Your task to perform on an android device: uninstall "WhatsApp Messenger" Image 0: 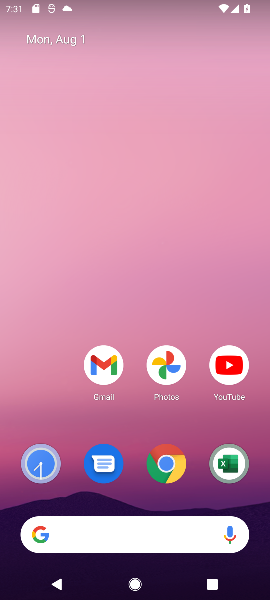
Step 0: drag from (121, 504) to (139, 56)
Your task to perform on an android device: uninstall "WhatsApp Messenger" Image 1: 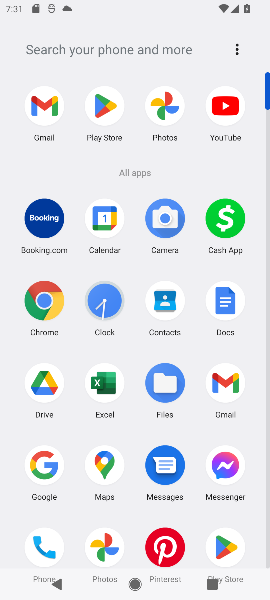
Step 1: click (93, 122)
Your task to perform on an android device: uninstall "WhatsApp Messenger" Image 2: 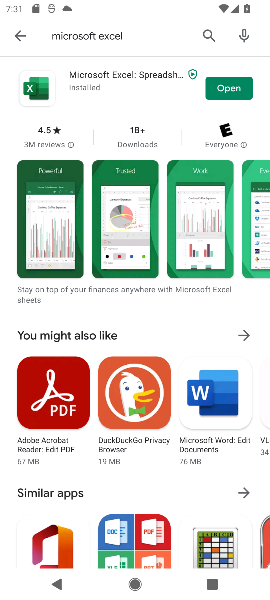
Step 2: click (206, 27)
Your task to perform on an android device: uninstall "WhatsApp Messenger" Image 3: 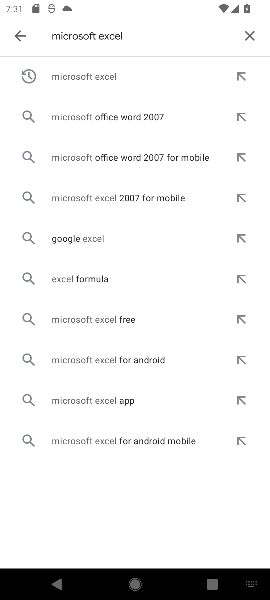
Step 3: click (241, 34)
Your task to perform on an android device: uninstall "WhatsApp Messenger" Image 4: 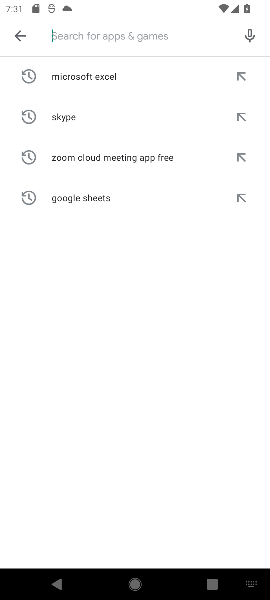
Step 4: type "whatapp"
Your task to perform on an android device: uninstall "WhatsApp Messenger" Image 5: 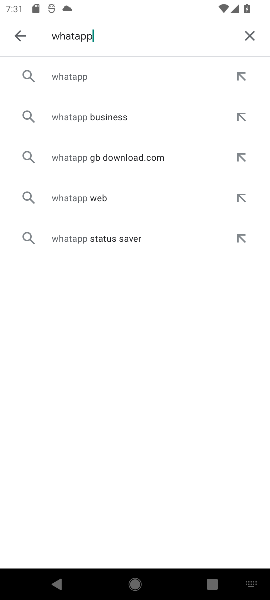
Step 5: click (137, 81)
Your task to perform on an android device: uninstall "WhatsApp Messenger" Image 6: 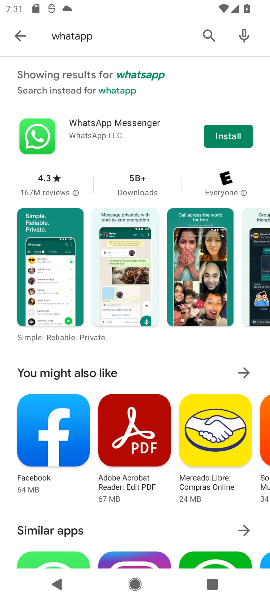
Step 6: click (214, 133)
Your task to perform on an android device: uninstall "WhatsApp Messenger" Image 7: 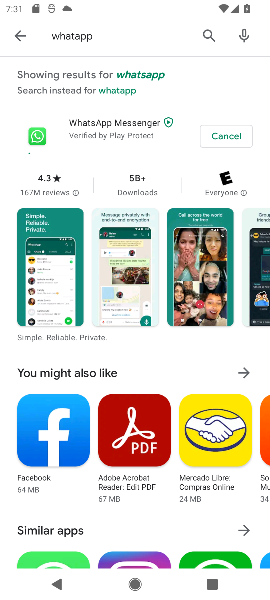
Step 7: task complete